Your task to perform on an android device: open app "Google Home" (install if not already installed) Image 0: 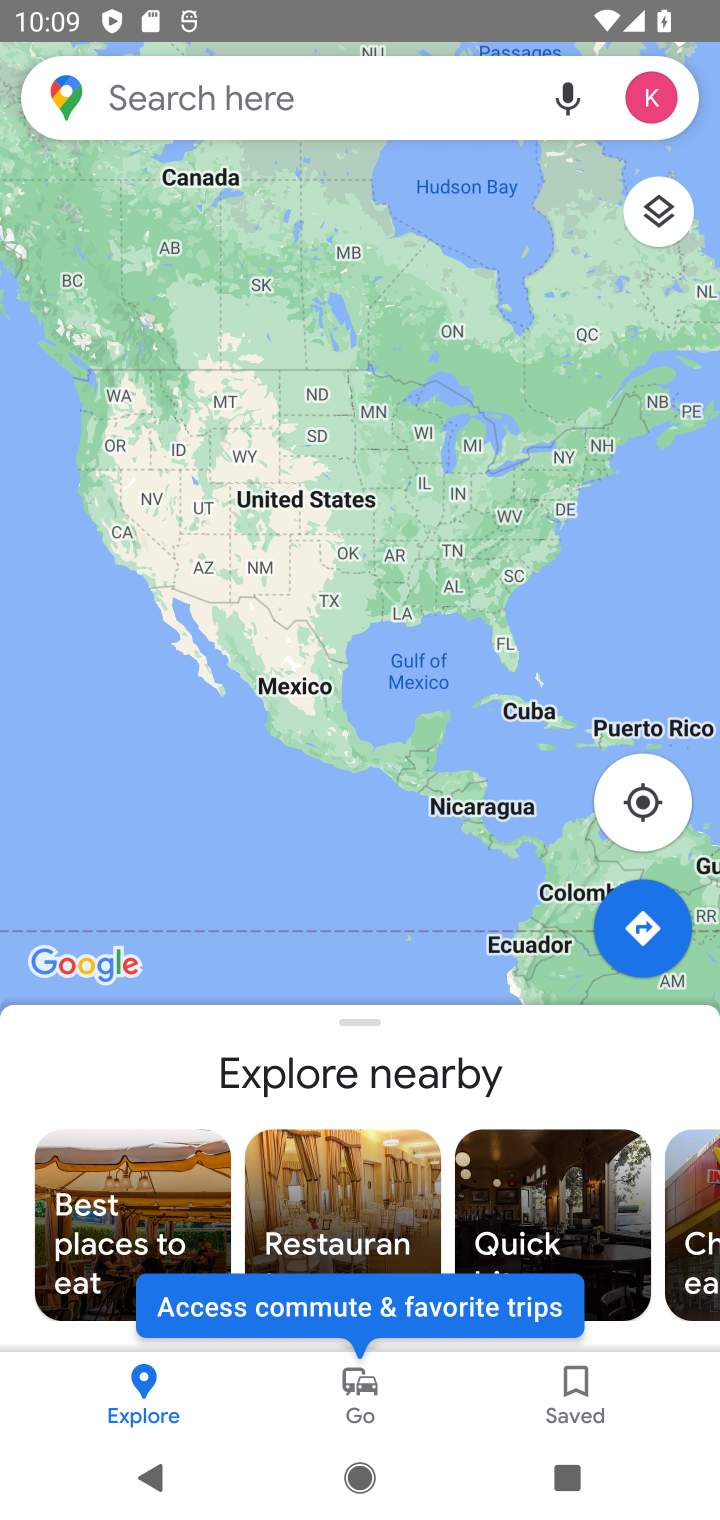
Step 0: press back button
Your task to perform on an android device: open app "Google Home" (install if not already installed) Image 1: 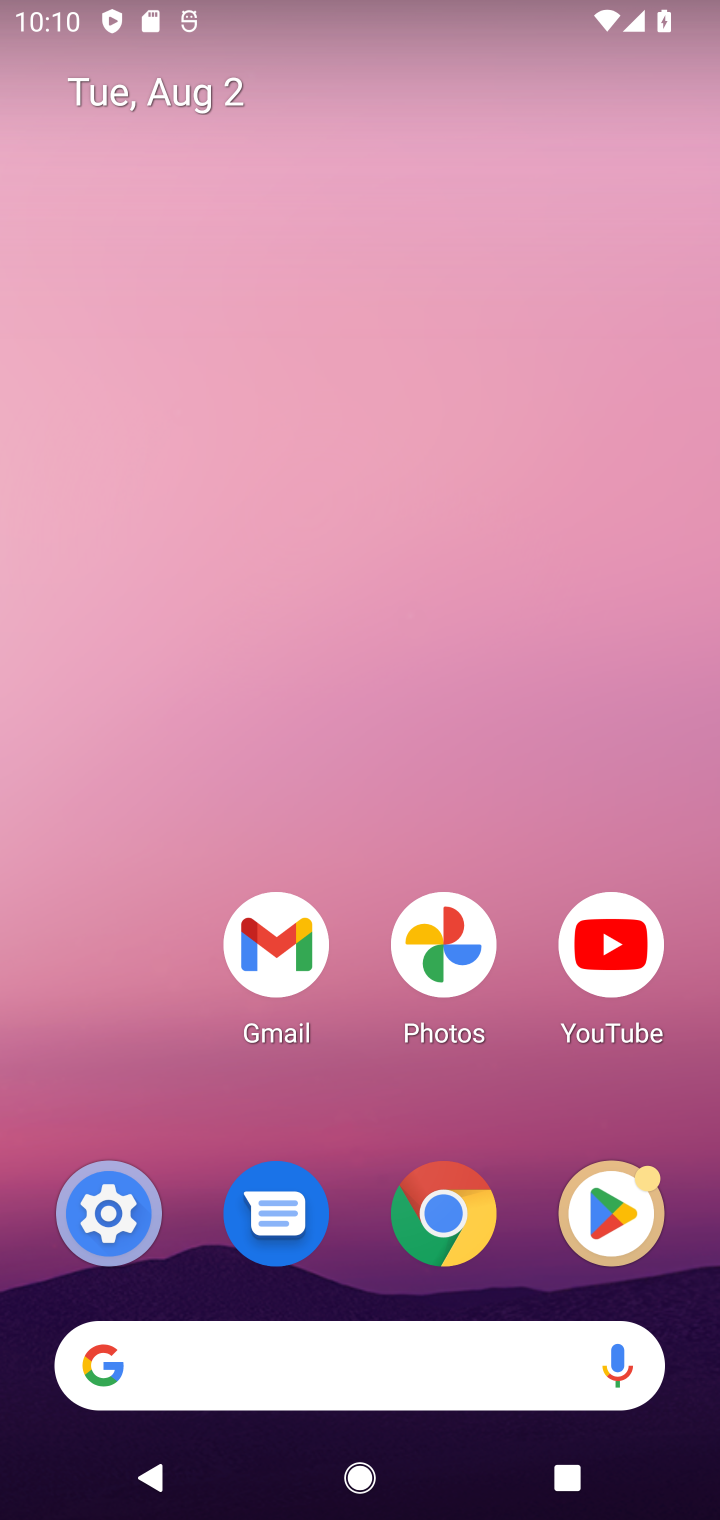
Step 1: drag from (334, 1093) to (384, 349)
Your task to perform on an android device: open app "Google Home" (install if not already installed) Image 2: 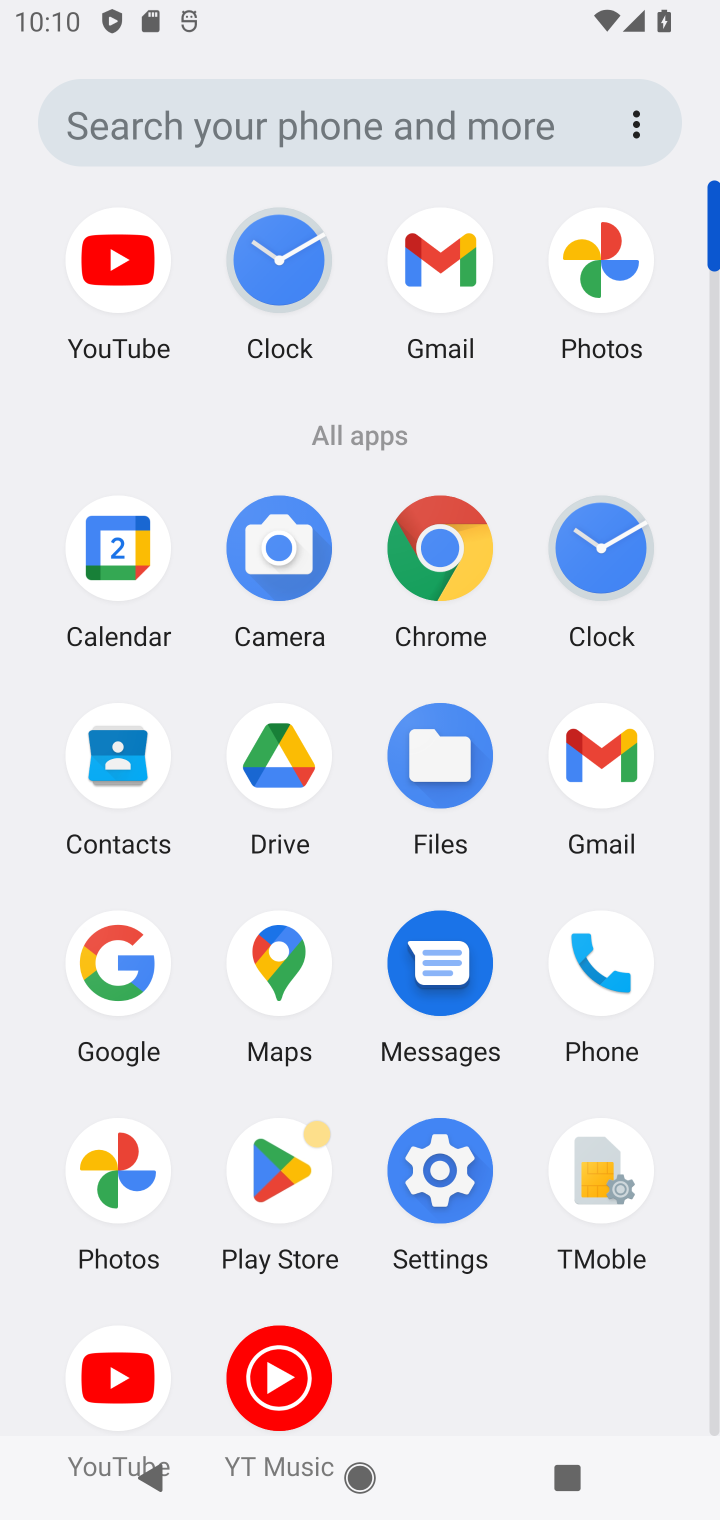
Step 2: drag from (271, 1157) to (340, 467)
Your task to perform on an android device: open app "Google Home" (install if not already installed) Image 3: 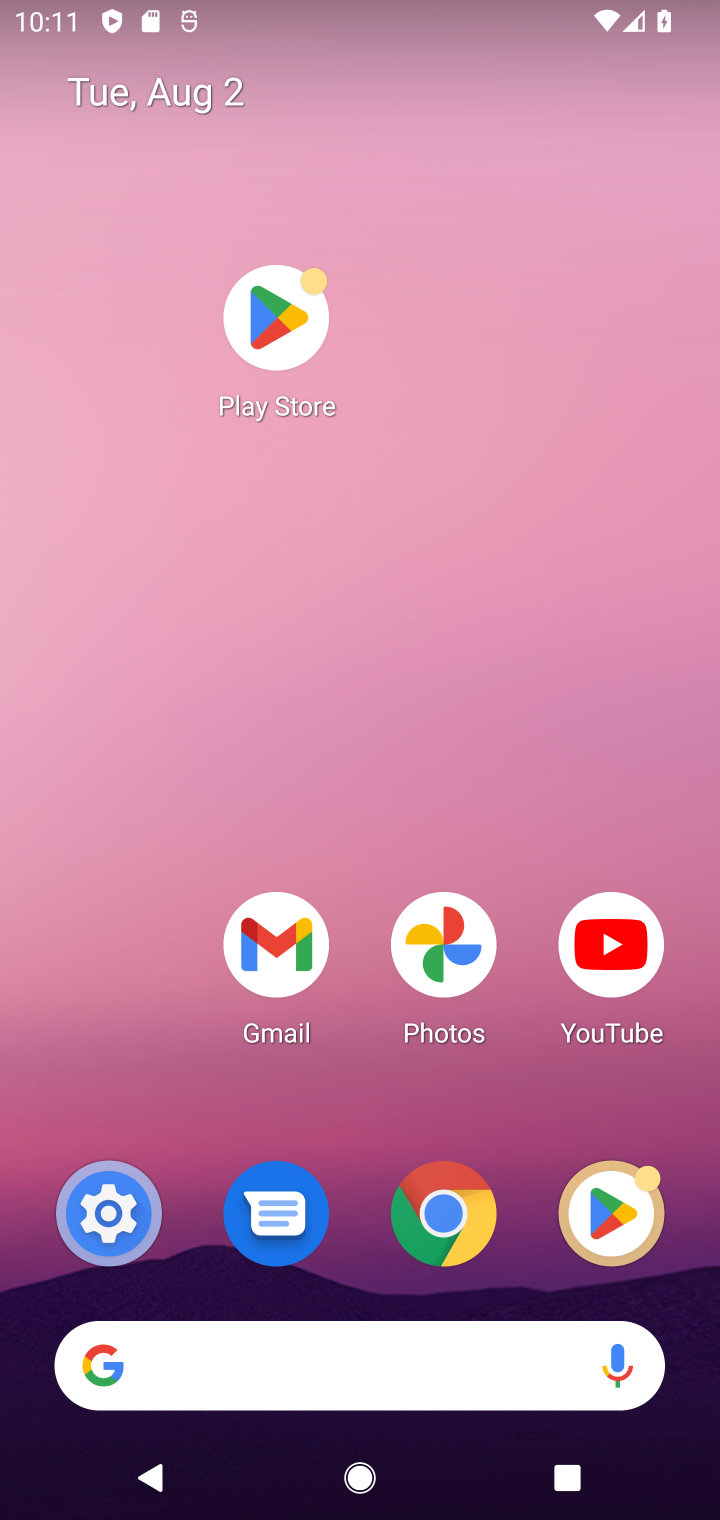
Step 3: click (294, 326)
Your task to perform on an android device: open app "Google Home" (install if not already installed) Image 4: 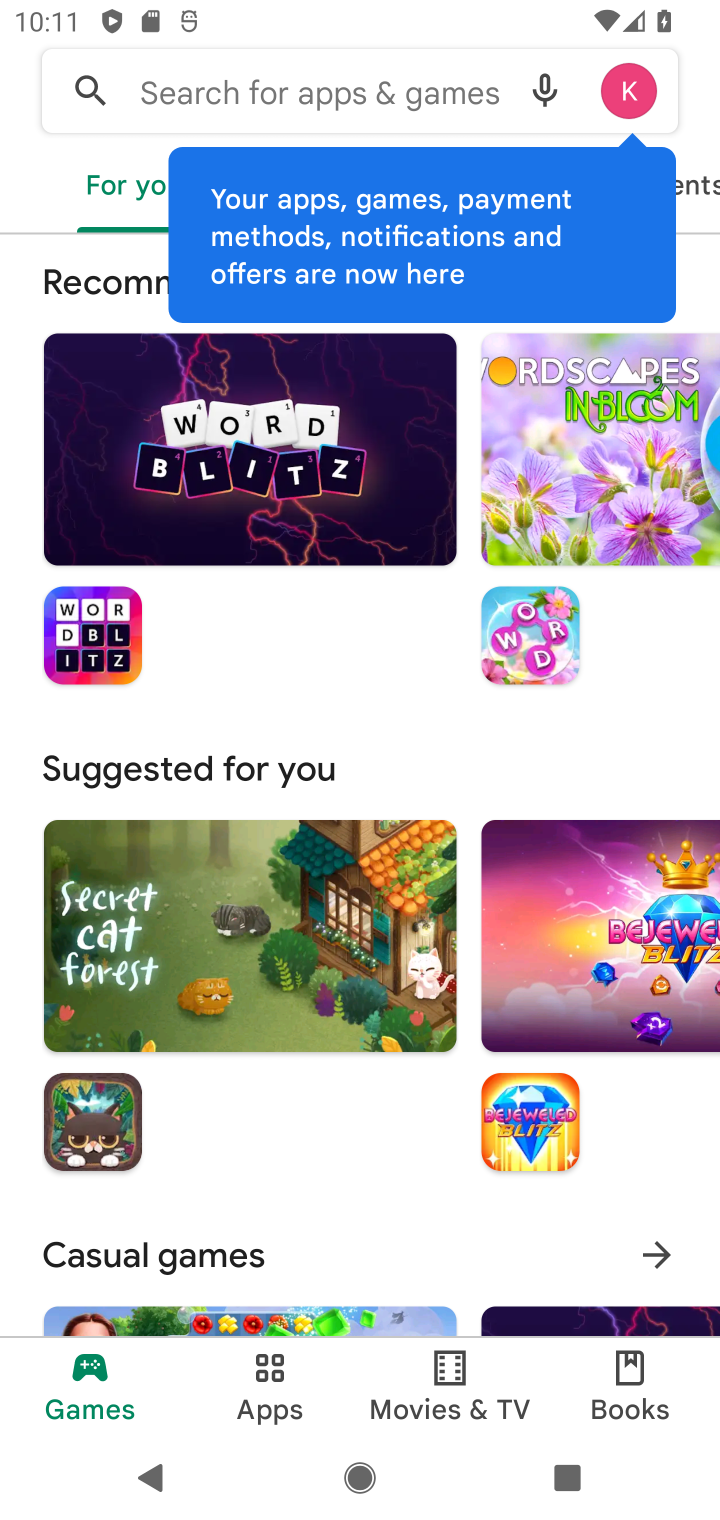
Step 4: click (293, 91)
Your task to perform on an android device: open app "Google Home" (install if not already installed) Image 5: 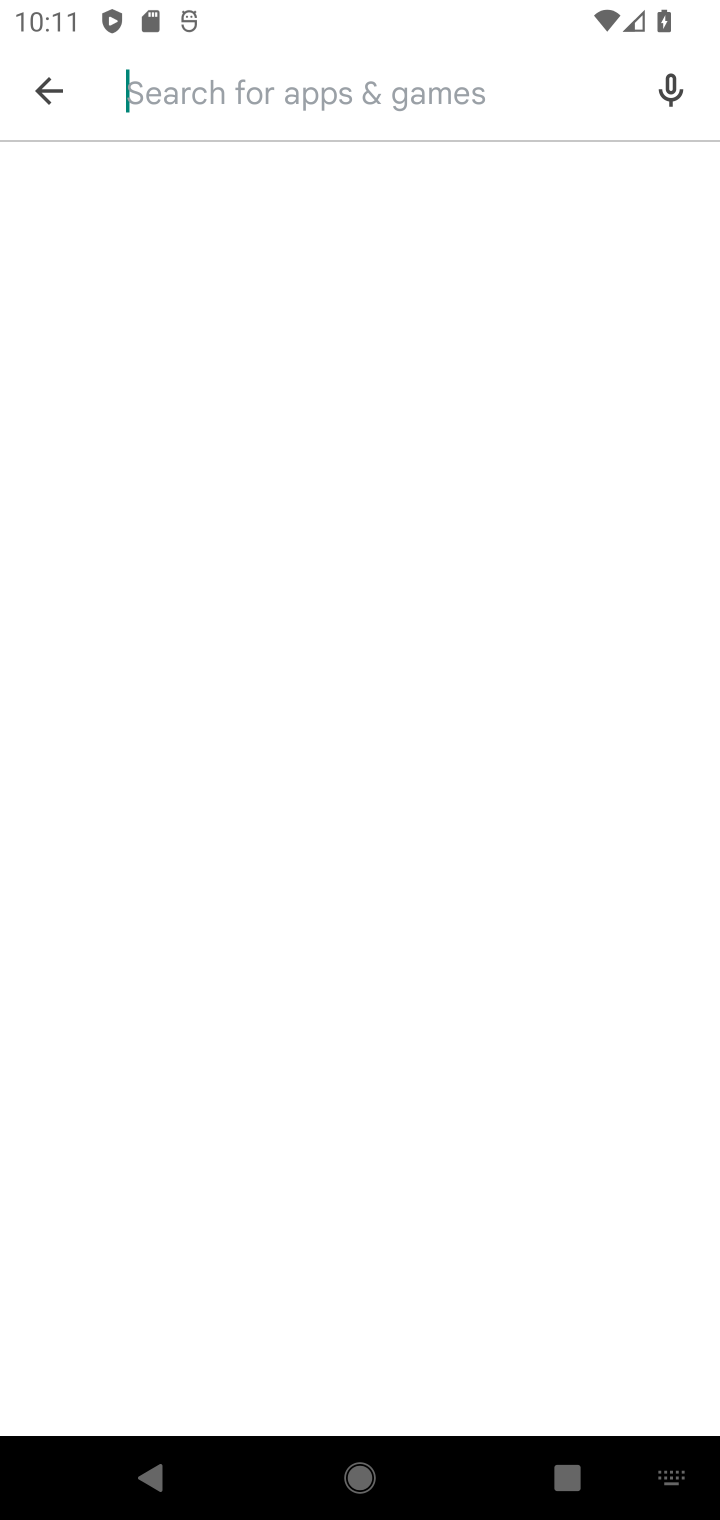
Step 5: type "google home"
Your task to perform on an android device: open app "Google Home" (install if not already installed) Image 6: 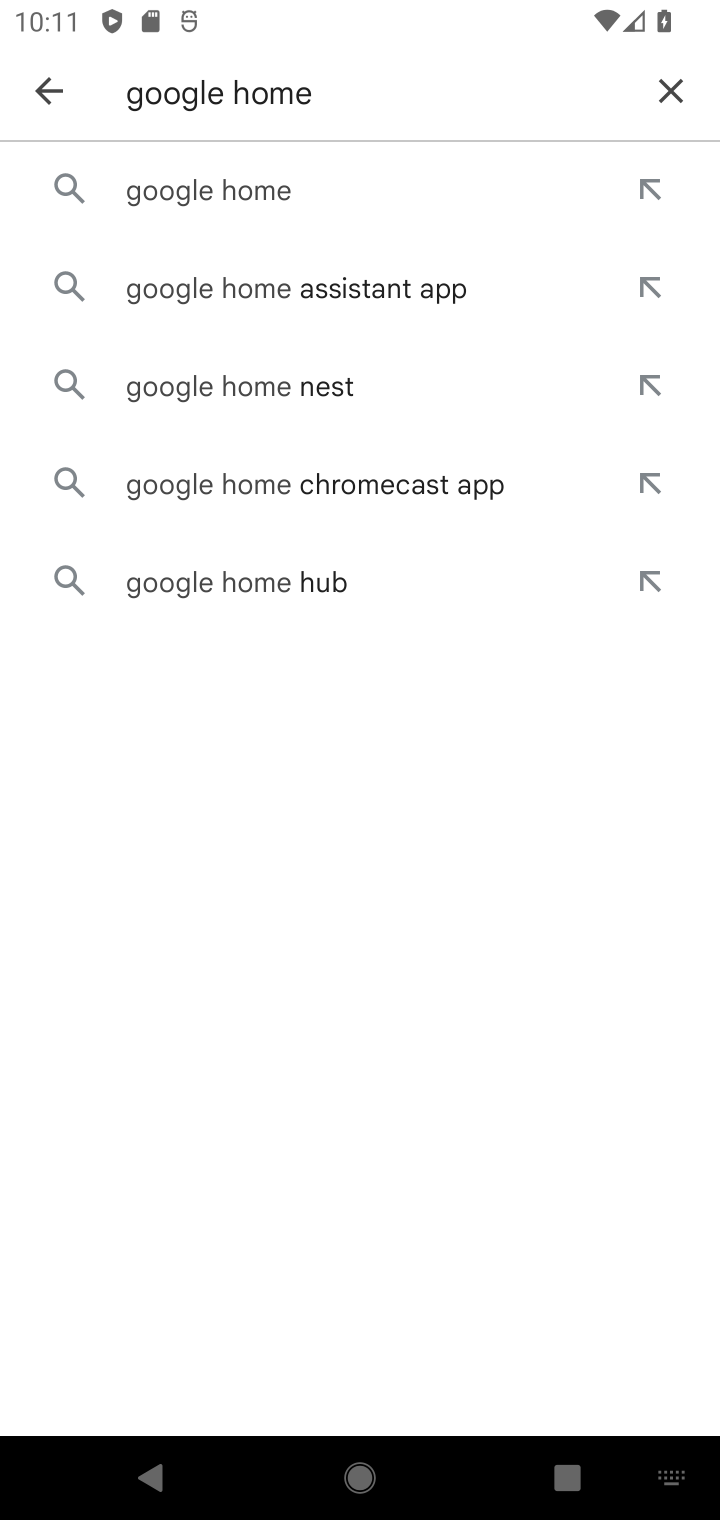
Step 6: click (324, 211)
Your task to perform on an android device: open app "Google Home" (install if not already installed) Image 7: 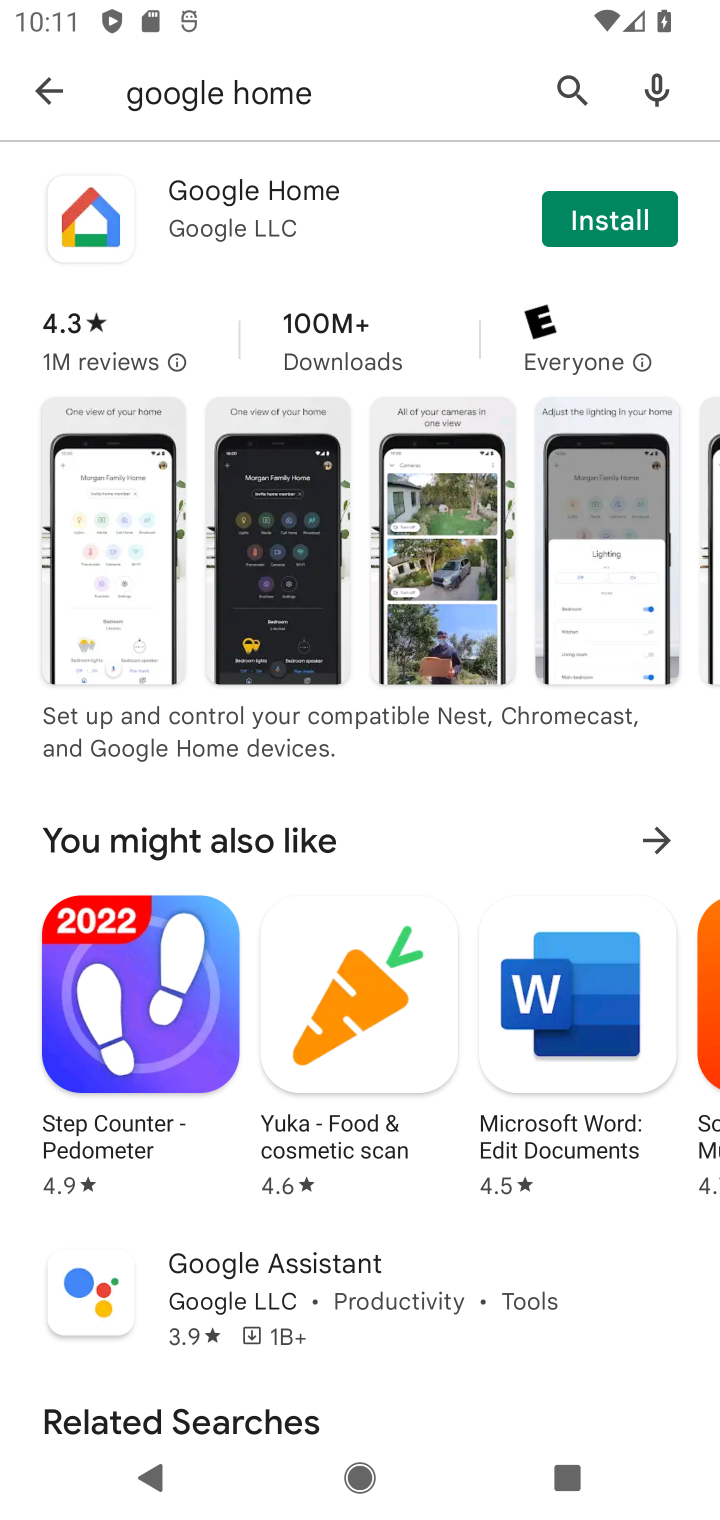
Step 7: click (603, 228)
Your task to perform on an android device: open app "Google Home" (install if not already installed) Image 8: 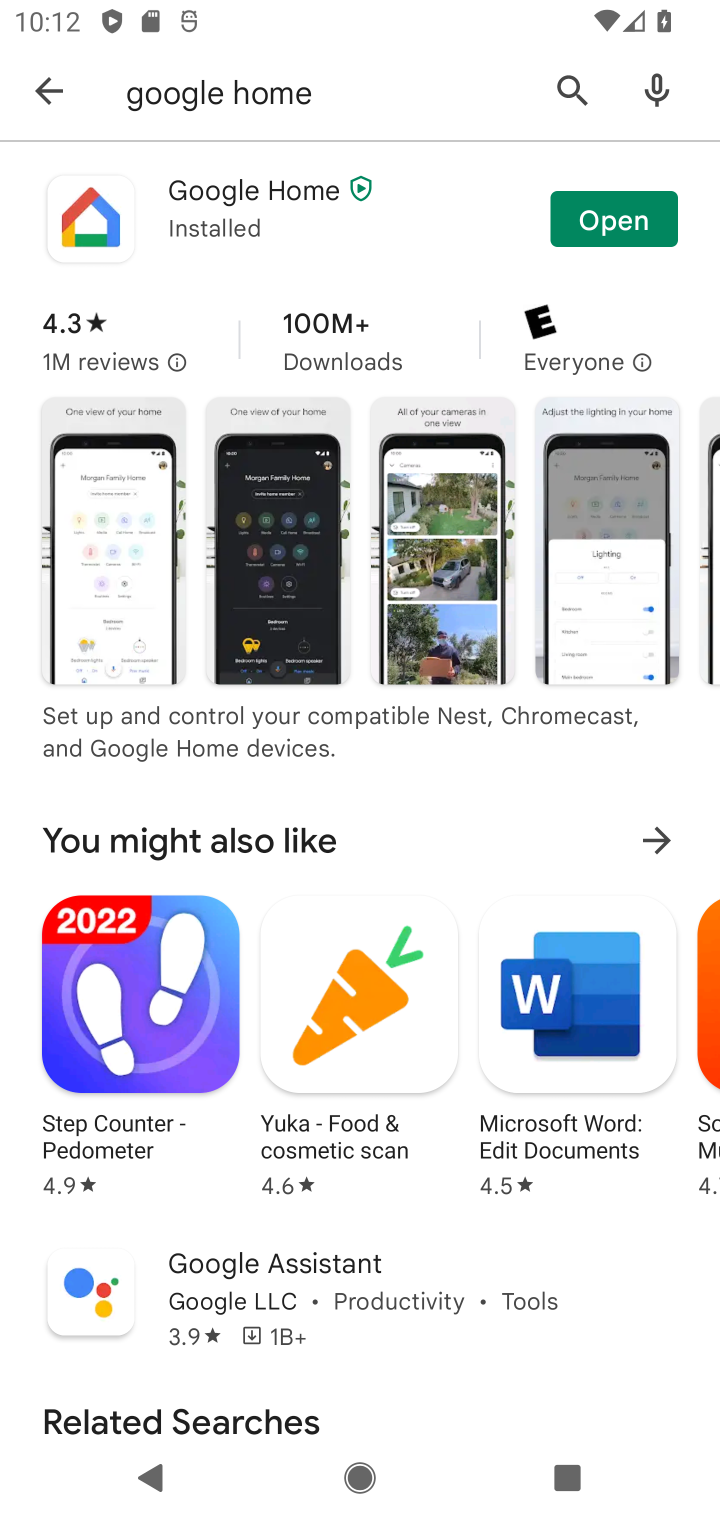
Step 8: click (591, 219)
Your task to perform on an android device: open app "Google Home" (install if not already installed) Image 9: 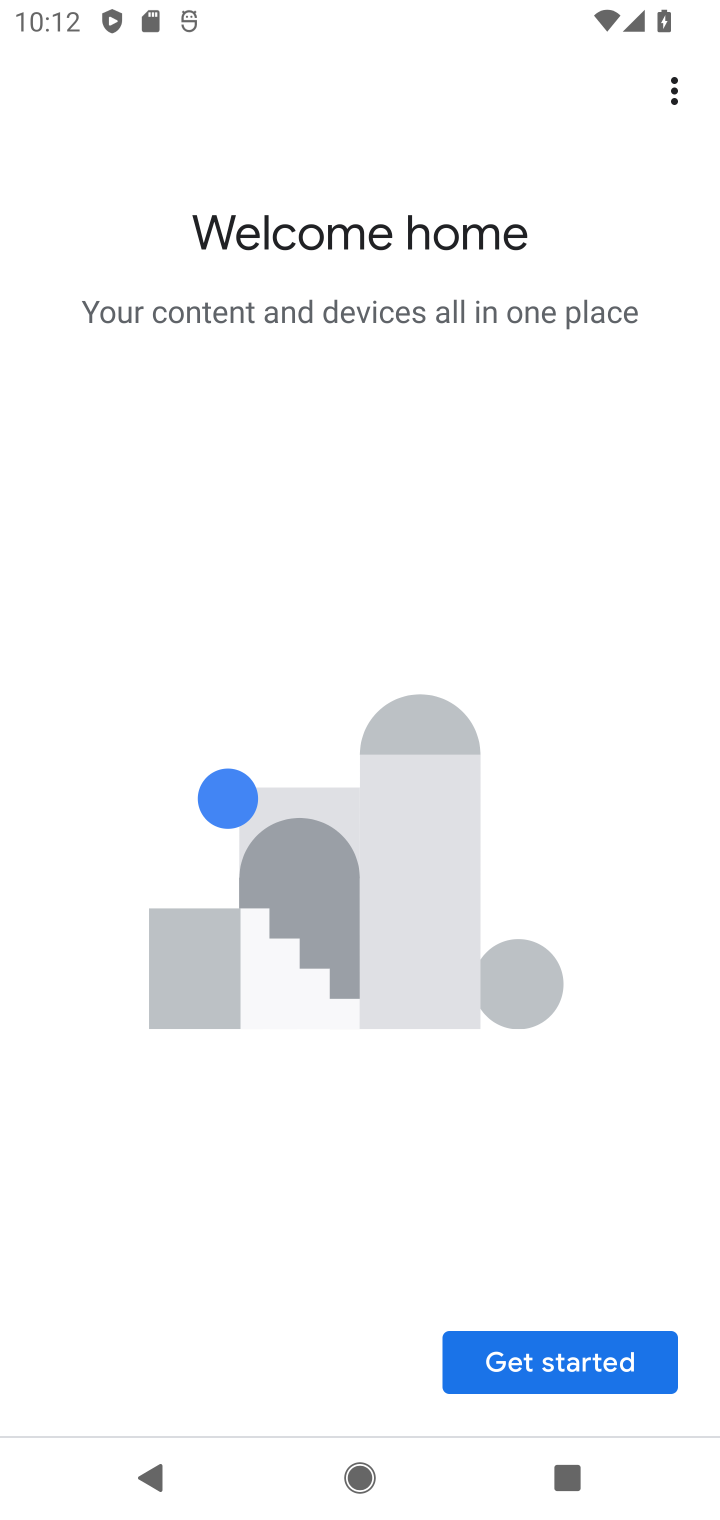
Step 9: task complete